Your task to perform on an android device: Go to Google Image 0: 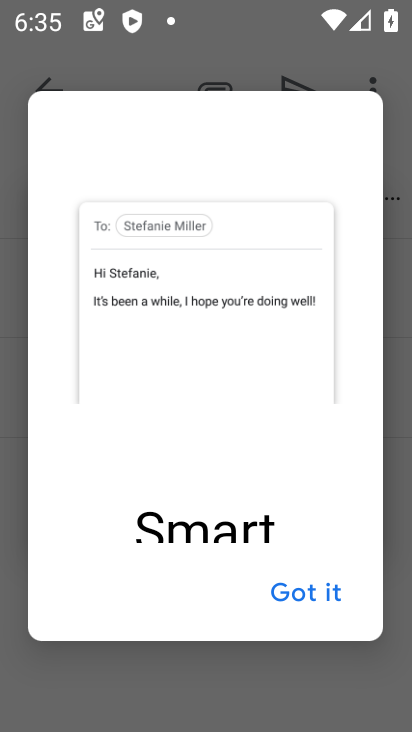
Step 0: press home button
Your task to perform on an android device: Go to Google Image 1: 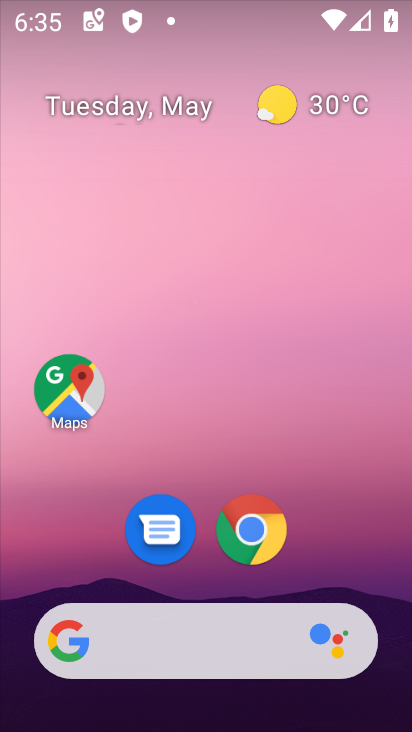
Step 1: drag from (205, 148) to (160, 74)
Your task to perform on an android device: Go to Google Image 2: 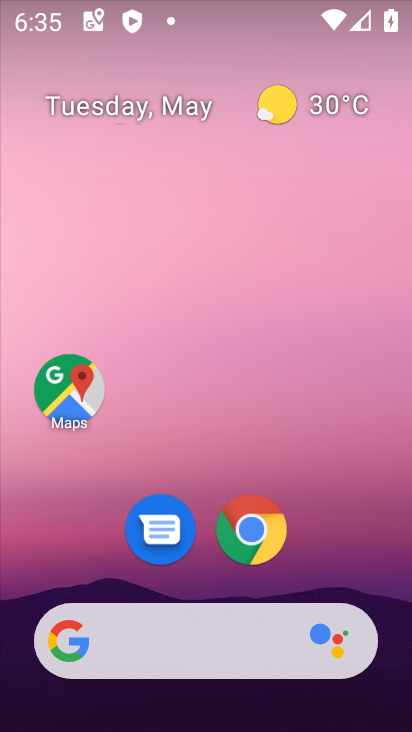
Step 2: drag from (367, 570) to (264, 1)
Your task to perform on an android device: Go to Google Image 3: 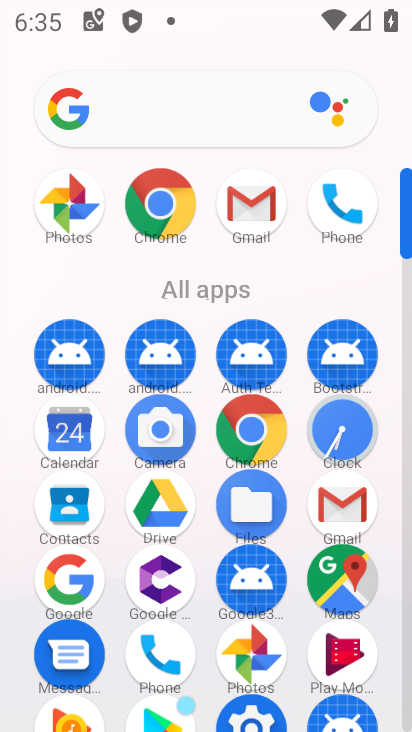
Step 3: click (71, 593)
Your task to perform on an android device: Go to Google Image 4: 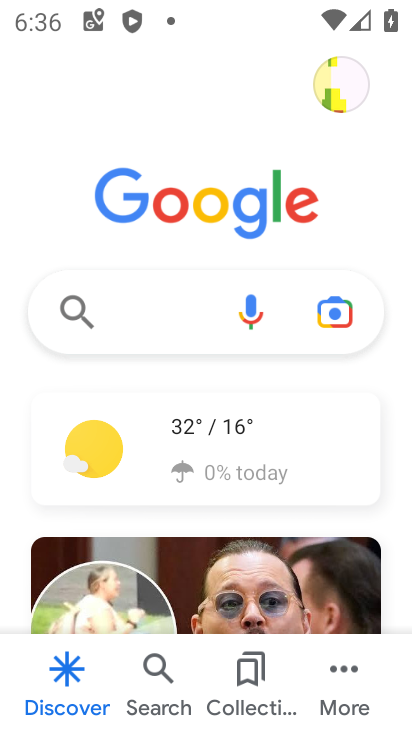
Step 4: task complete